Your task to perform on an android device: open a bookmark in the chrome app Image 0: 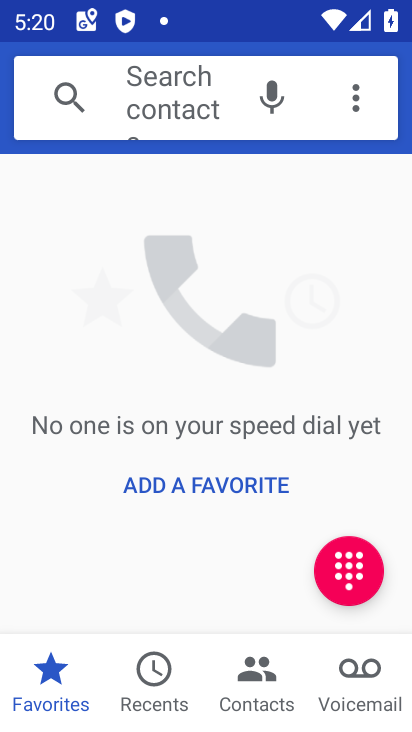
Step 0: press home button
Your task to perform on an android device: open a bookmark in the chrome app Image 1: 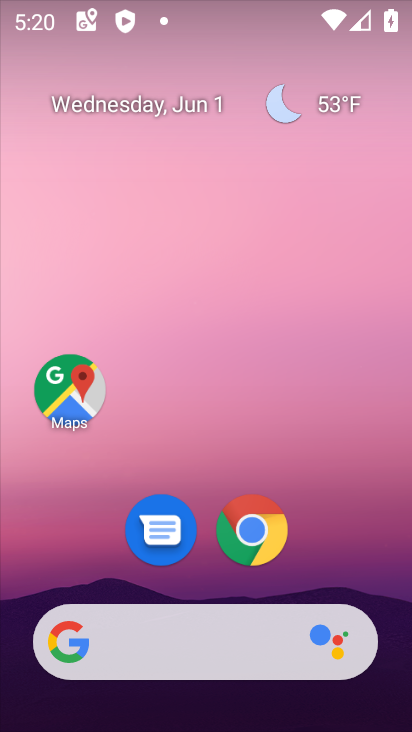
Step 1: drag from (202, 588) to (175, 116)
Your task to perform on an android device: open a bookmark in the chrome app Image 2: 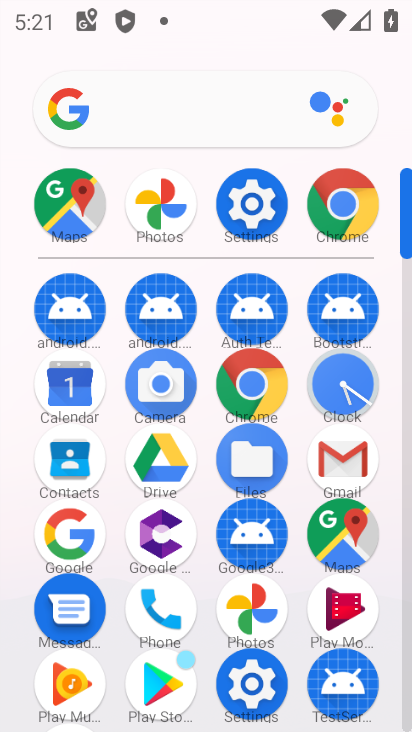
Step 2: click (247, 385)
Your task to perform on an android device: open a bookmark in the chrome app Image 3: 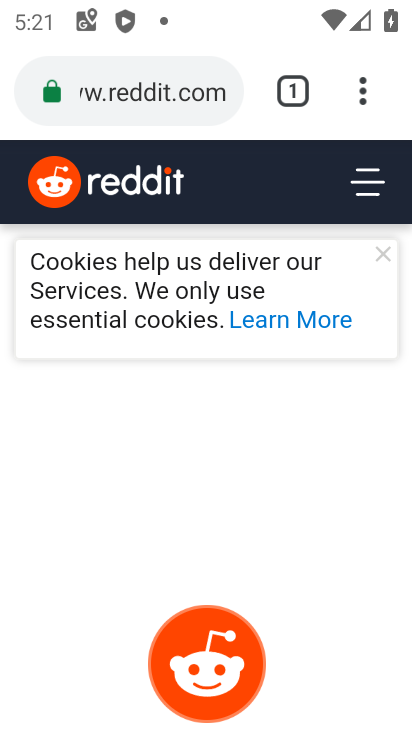
Step 3: click (363, 91)
Your task to perform on an android device: open a bookmark in the chrome app Image 4: 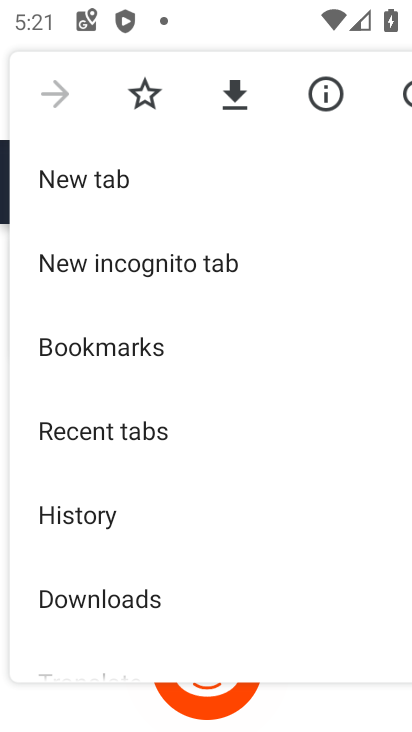
Step 4: click (154, 358)
Your task to perform on an android device: open a bookmark in the chrome app Image 5: 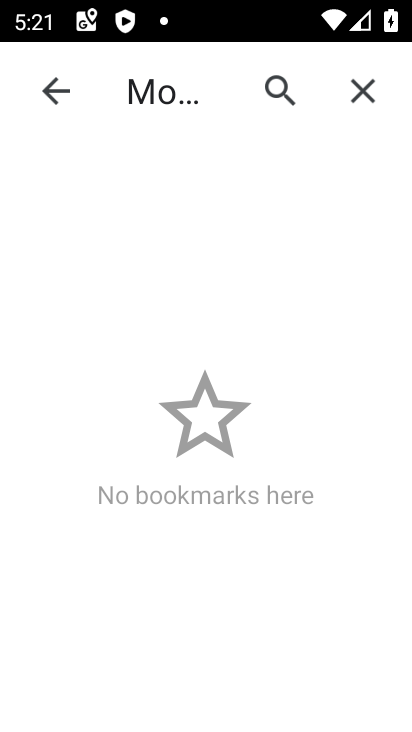
Step 5: task complete